Your task to perform on an android device: find which apps use the phone's location Image 0: 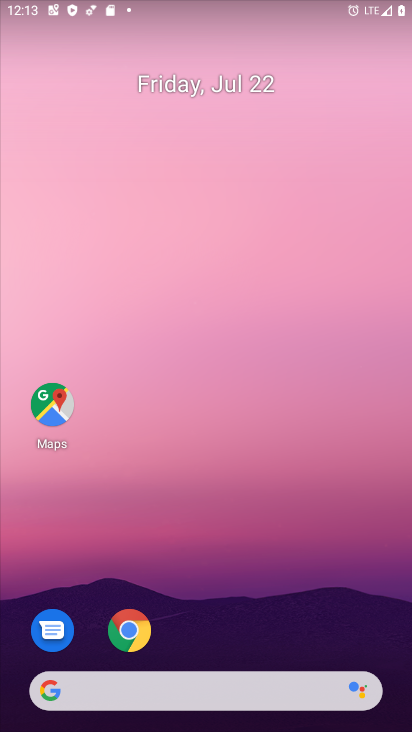
Step 0: drag from (185, 647) to (72, 211)
Your task to perform on an android device: find which apps use the phone's location Image 1: 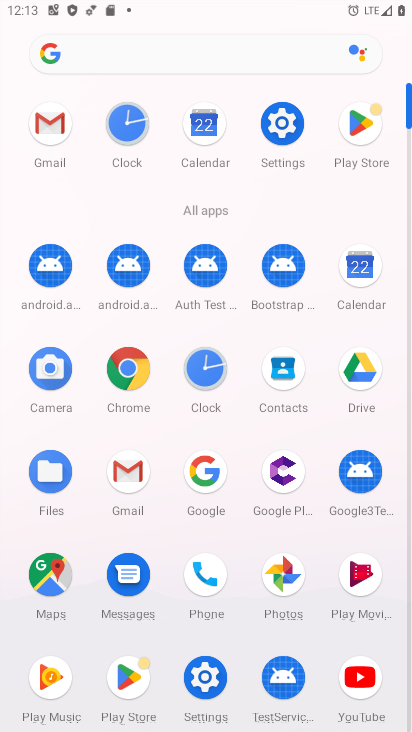
Step 1: click (207, 677)
Your task to perform on an android device: find which apps use the phone's location Image 2: 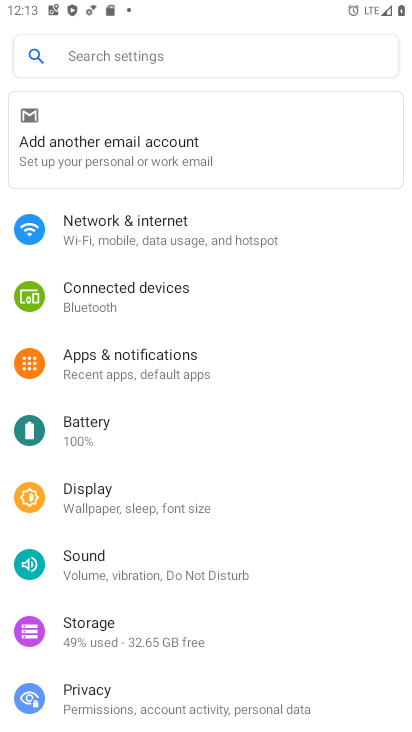
Step 2: drag from (172, 615) to (132, 362)
Your task to perform on an android device: find which apps use the phone's location Image 3: 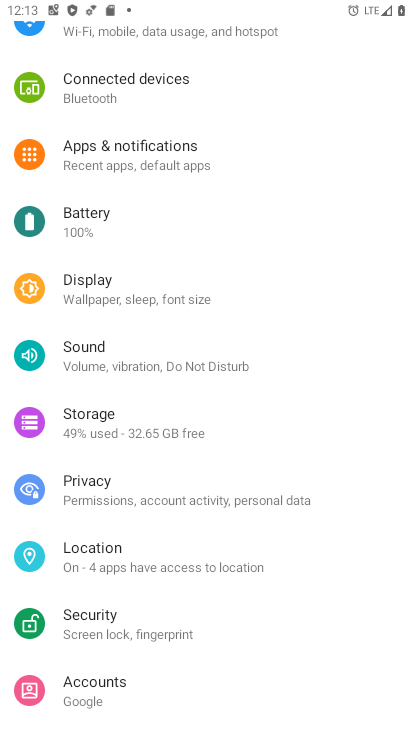
Step 3: click (79, 555)
Your task to perform on an android device: find which apps use the phone's location Image 4: 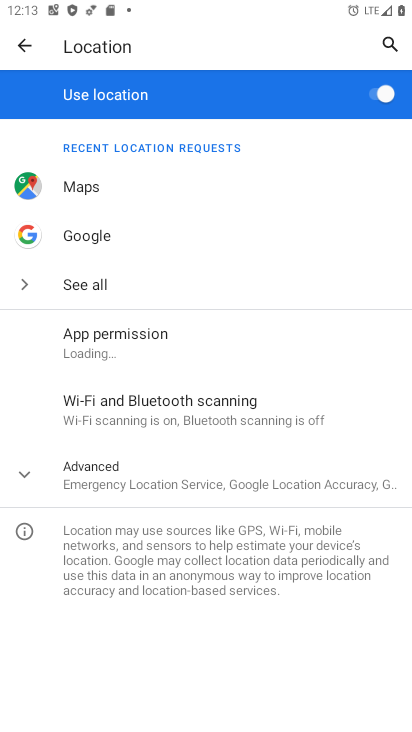
Step 4: click (82, 340)
Your task to perform on an android device: find which apps use the phone's location Image 5: 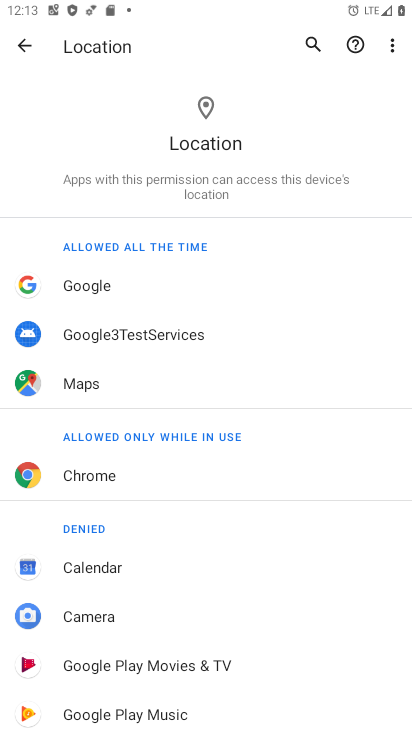
Step 5: task complete